Your task to perform on an android device: Open Yahoo.com Image 0: 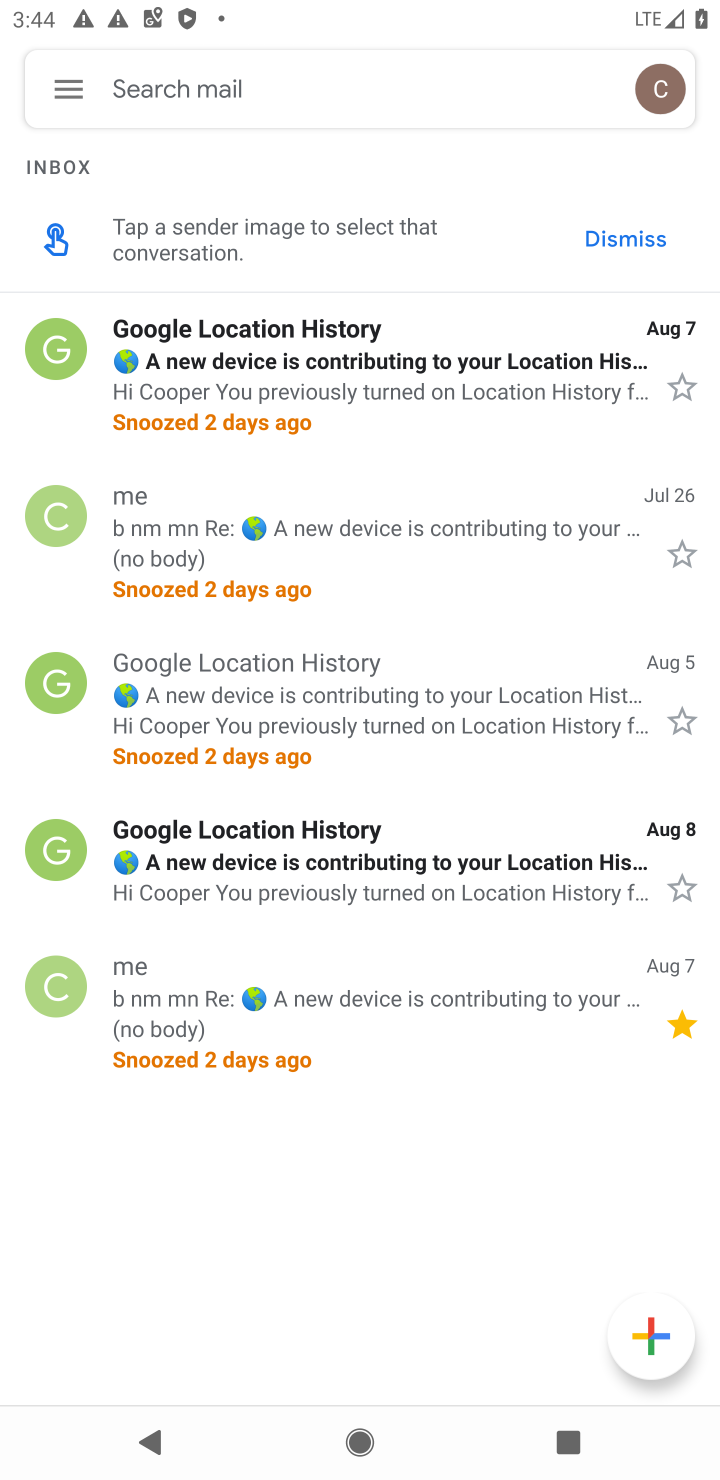
Step 0: press home button
Your task to perform on an android device: Open Yahoo.com Image 1: 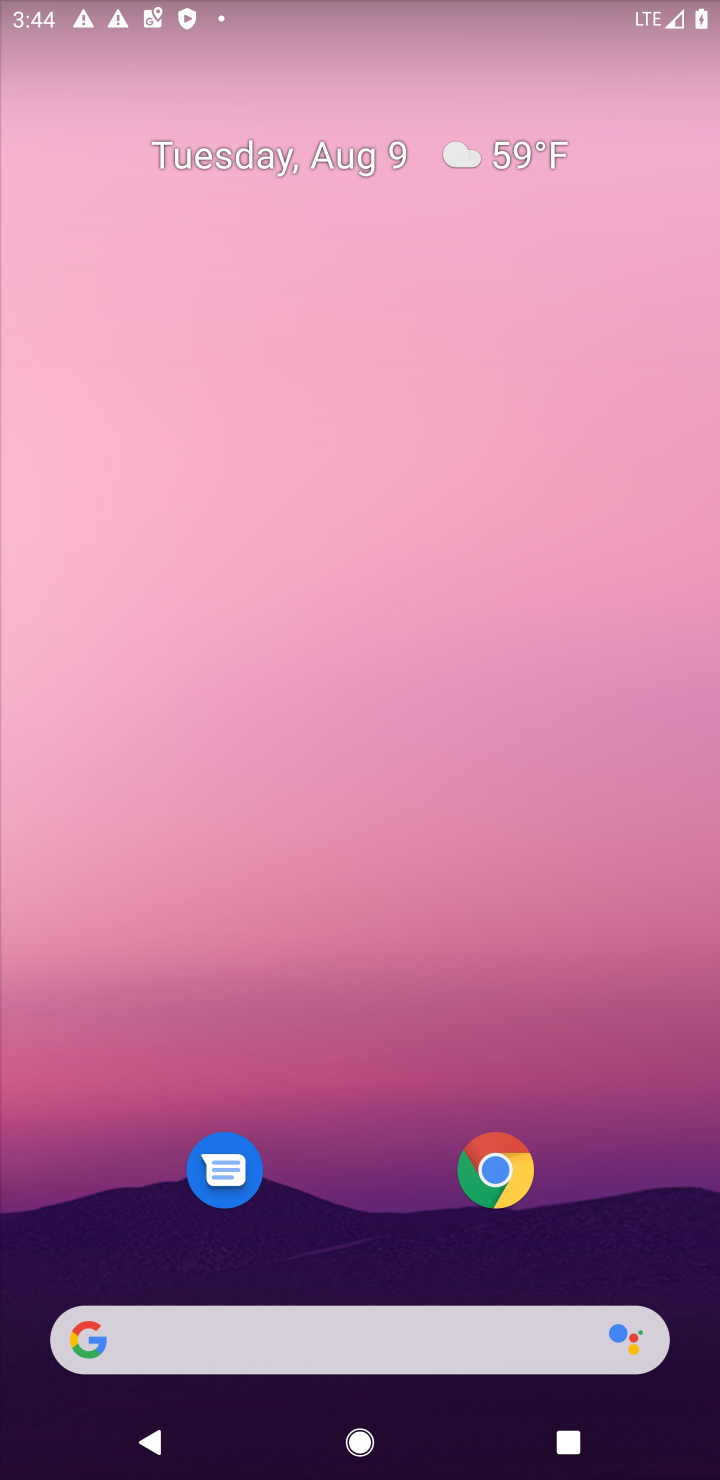
Step 1: click (88, 1344)
Your task to perform on an android device: Open Yahoo.com Image 2: 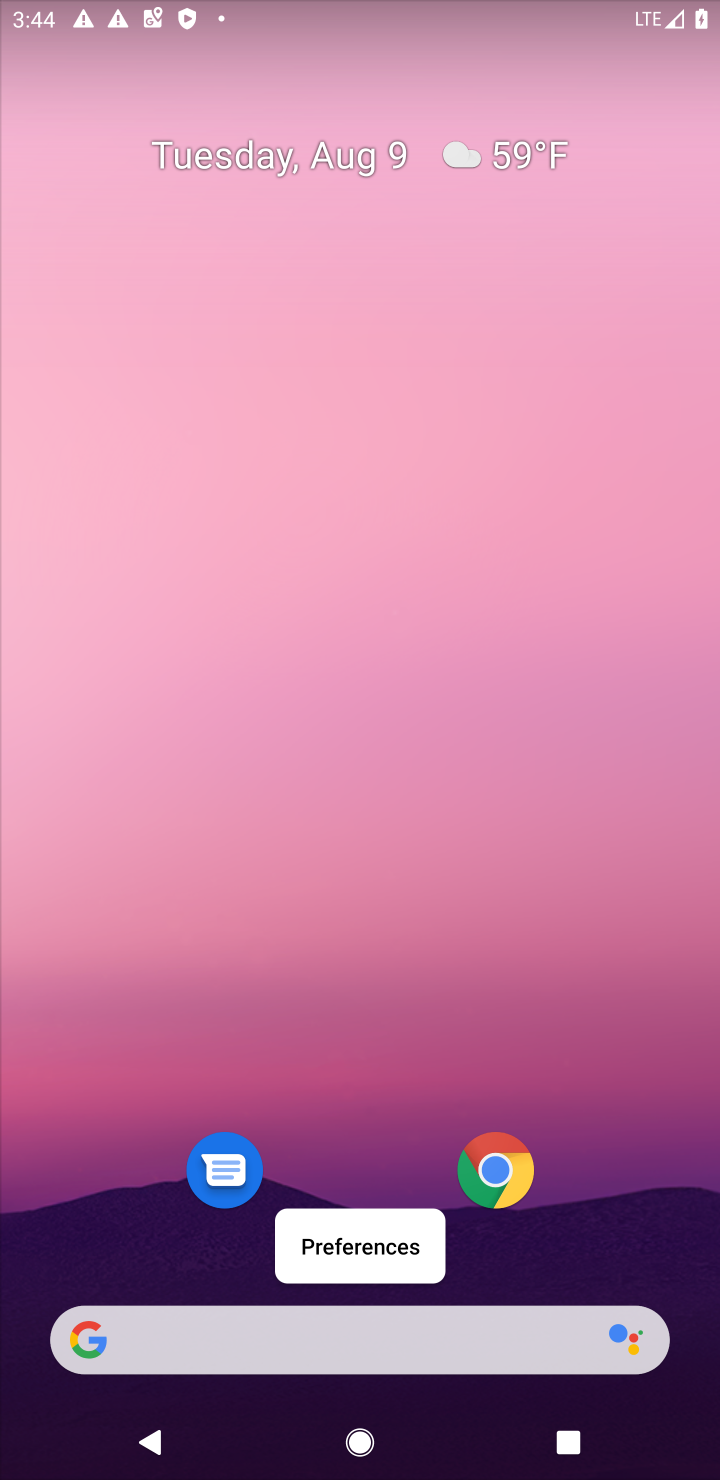
Step 2: click (82, 1339)
Your task to perform on an android device: Open Yahoo.com Image 3: 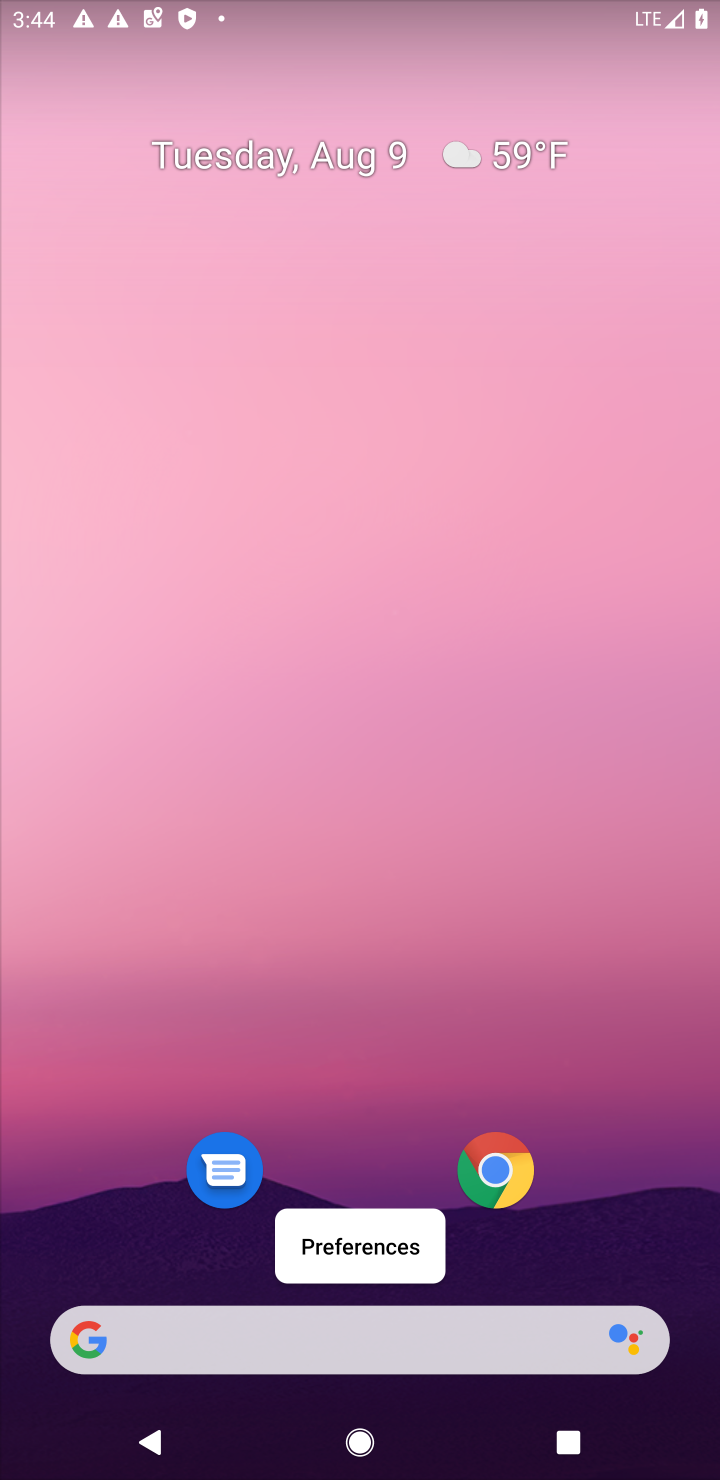
Step 3: click (82, 1339)
Your task to perform on an android device: Open Yahoo.com Image 4: 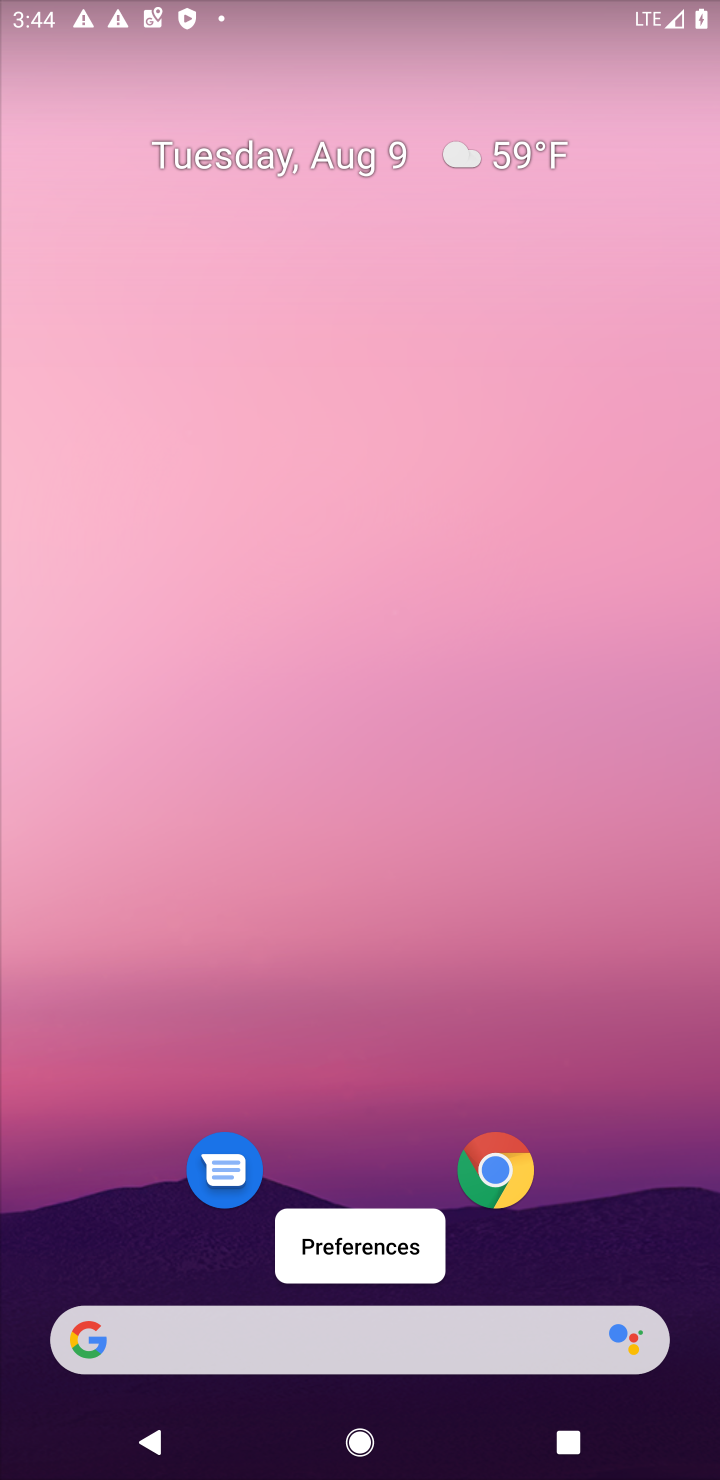
Step 4: click (72, 1349)
Your task to perform on an android device: Open Yahoo.com Image 5: 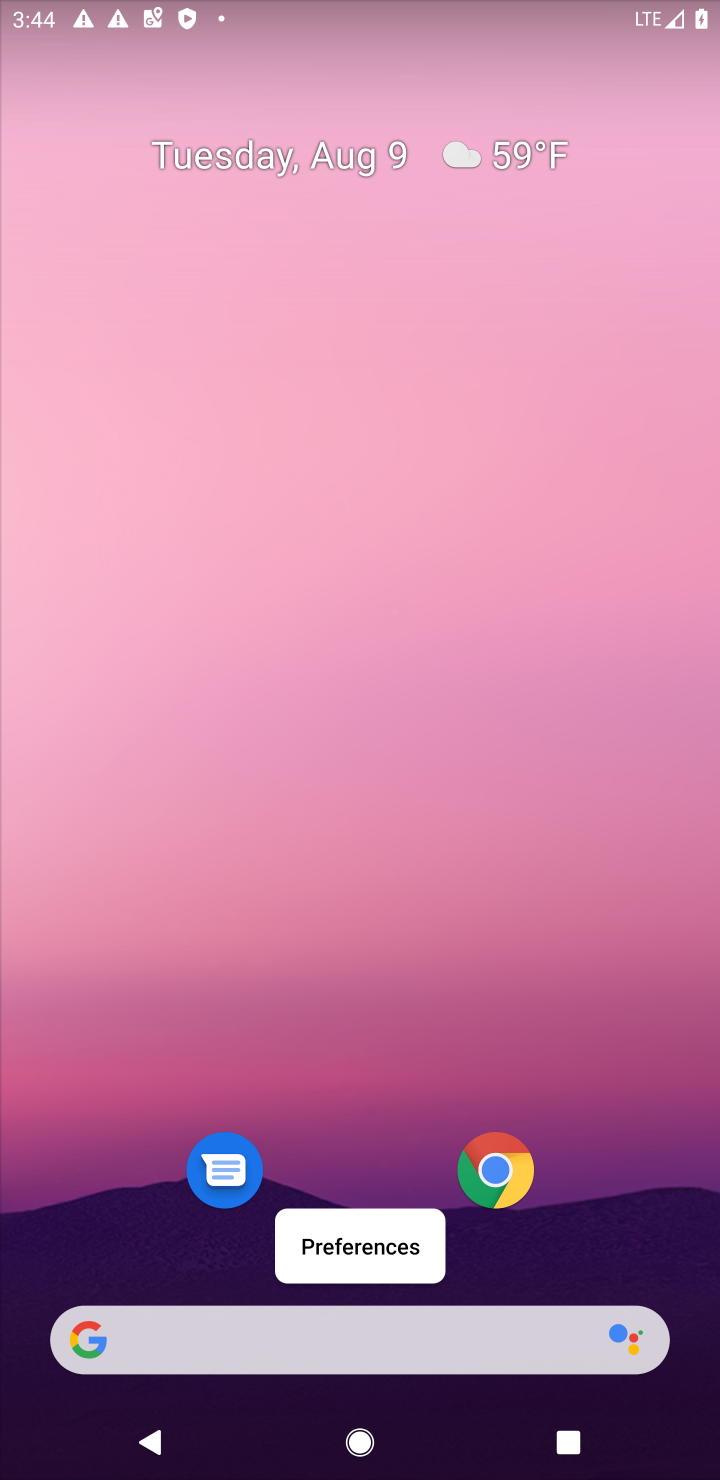
Step 5: click (72, 1346)
Your task to perform on an android device: Open Yahoo.com Image 6: 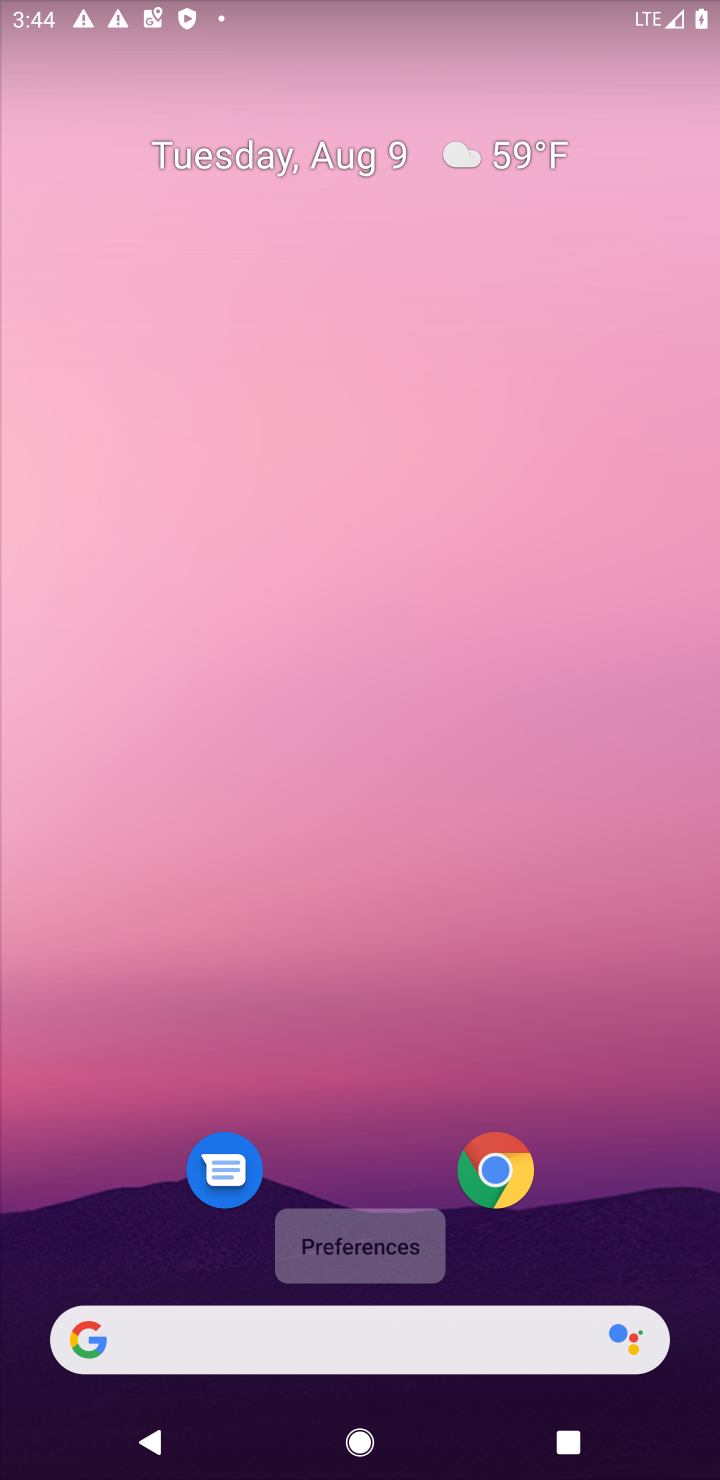
Step 6: click (77, 1339)
Your task to perform on an android device: Open Yahoo.com Image 7: 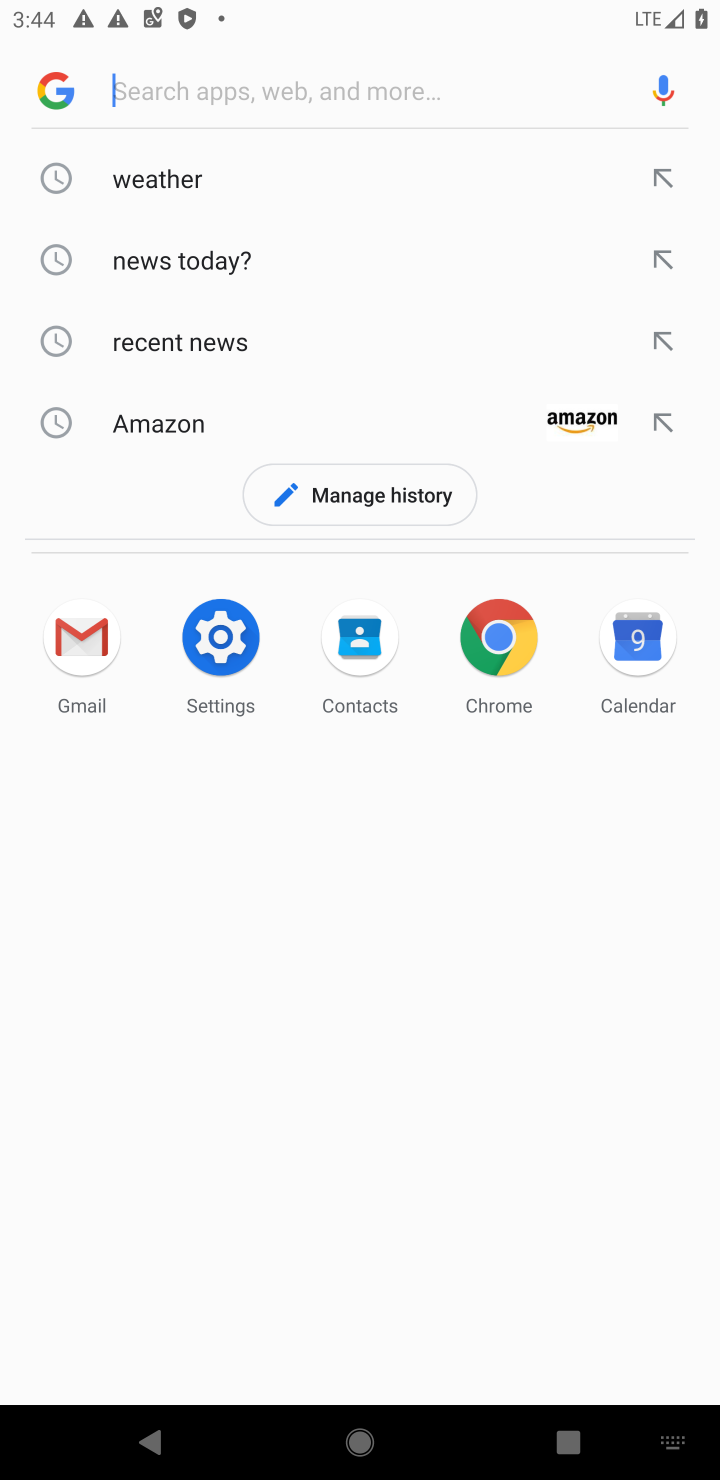
Step 7: type " Yahoo.com"
Your task to perform on an android device: Open Yahoo.com Image 8: 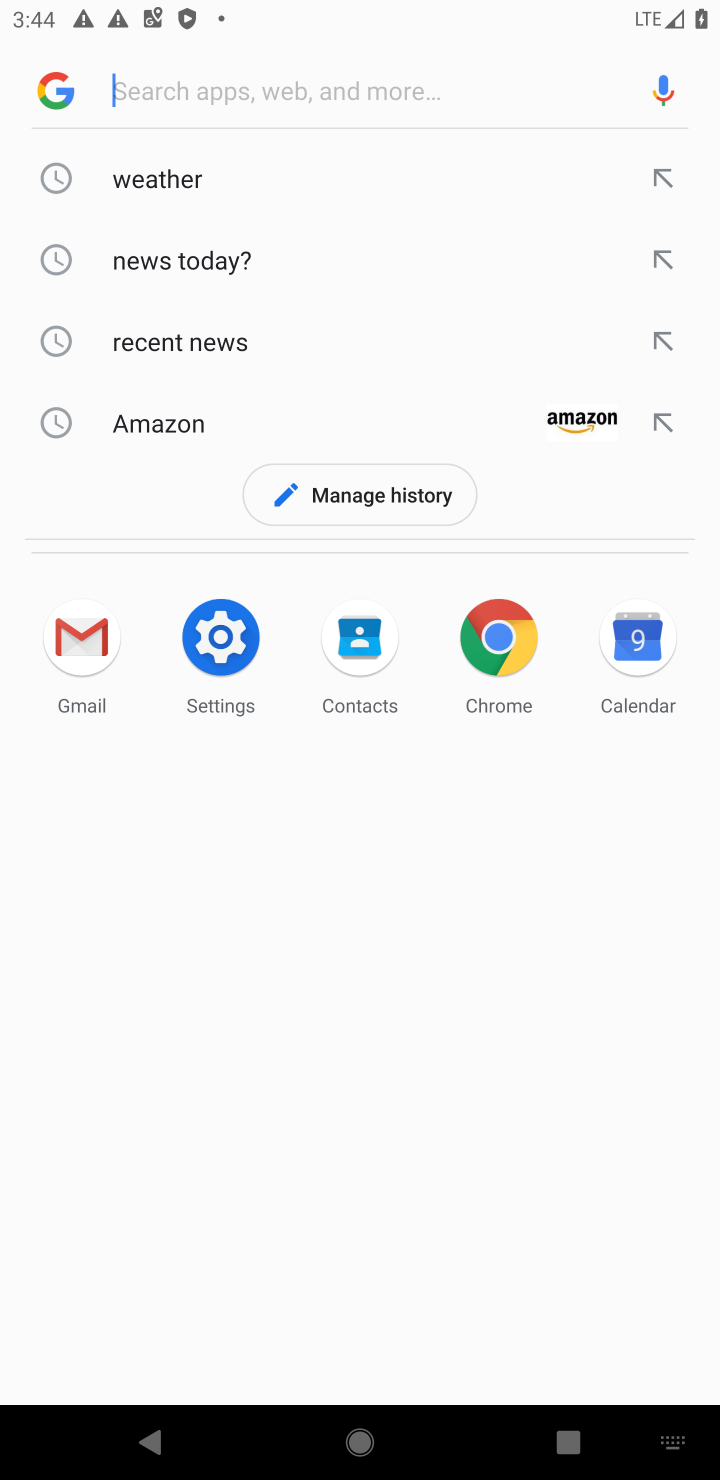
Step 8: click (206, 95)
Your task to perform on an android device: Open Yahoo.com Image 9: 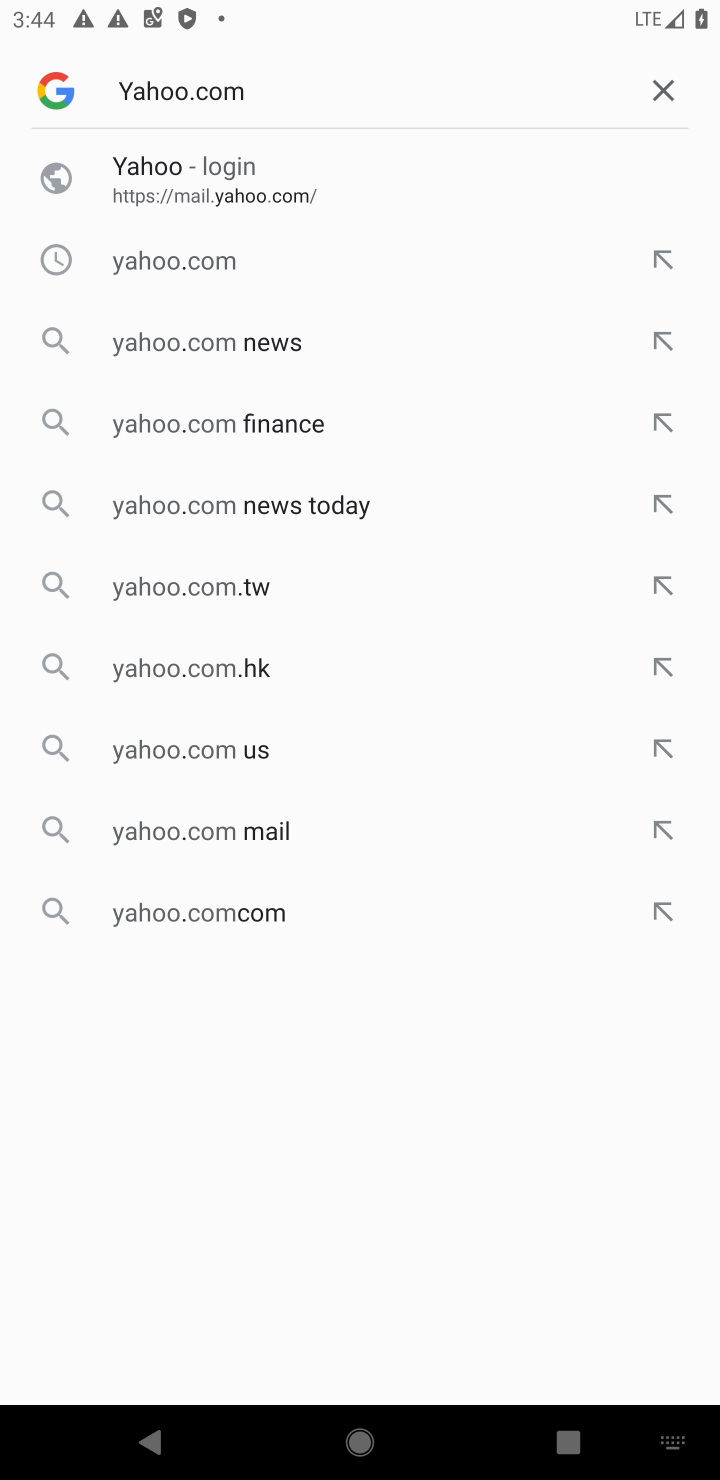
Step 9: click (210, 178)
Your task to perform on an android device: Open Yahoo.com Image 10: 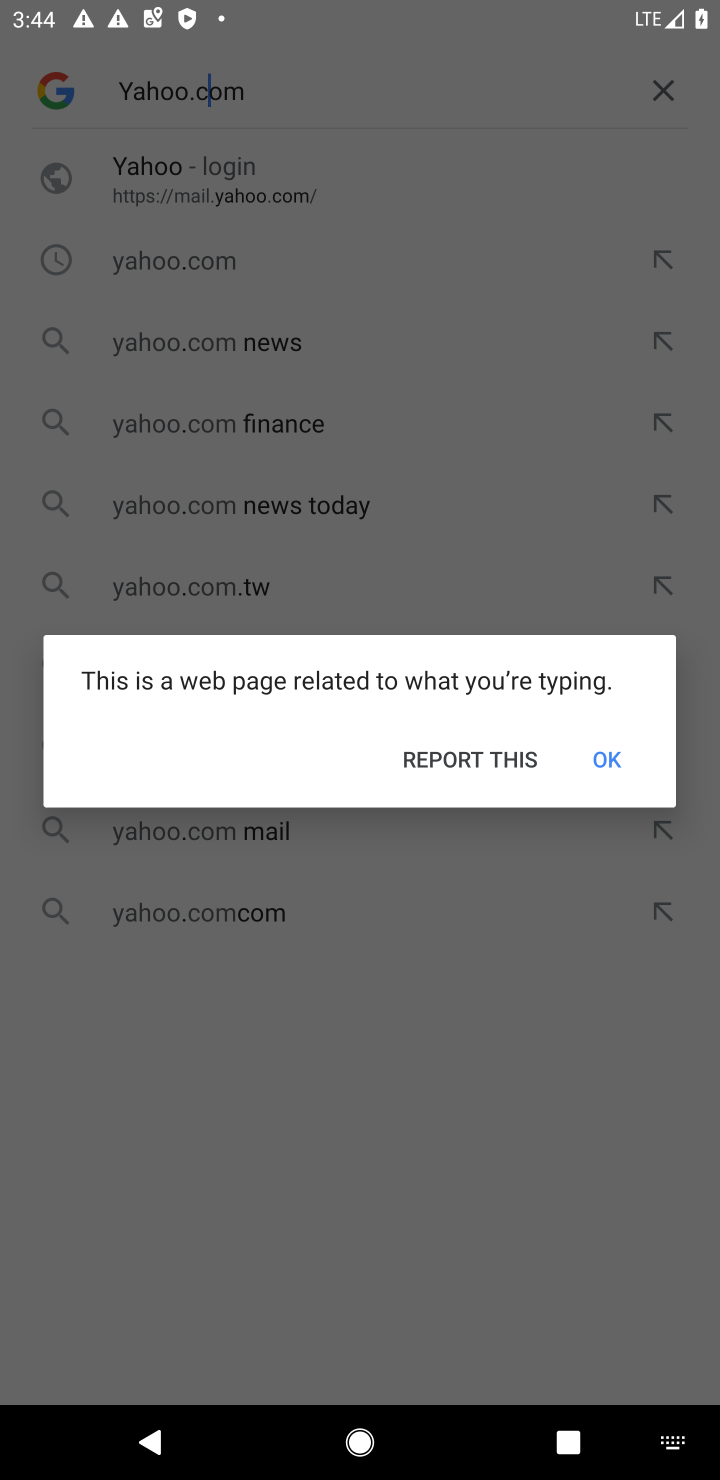
Step 10: click (612, 756)
Your task to perform on an android device: Open Yahoo.com Image 11: 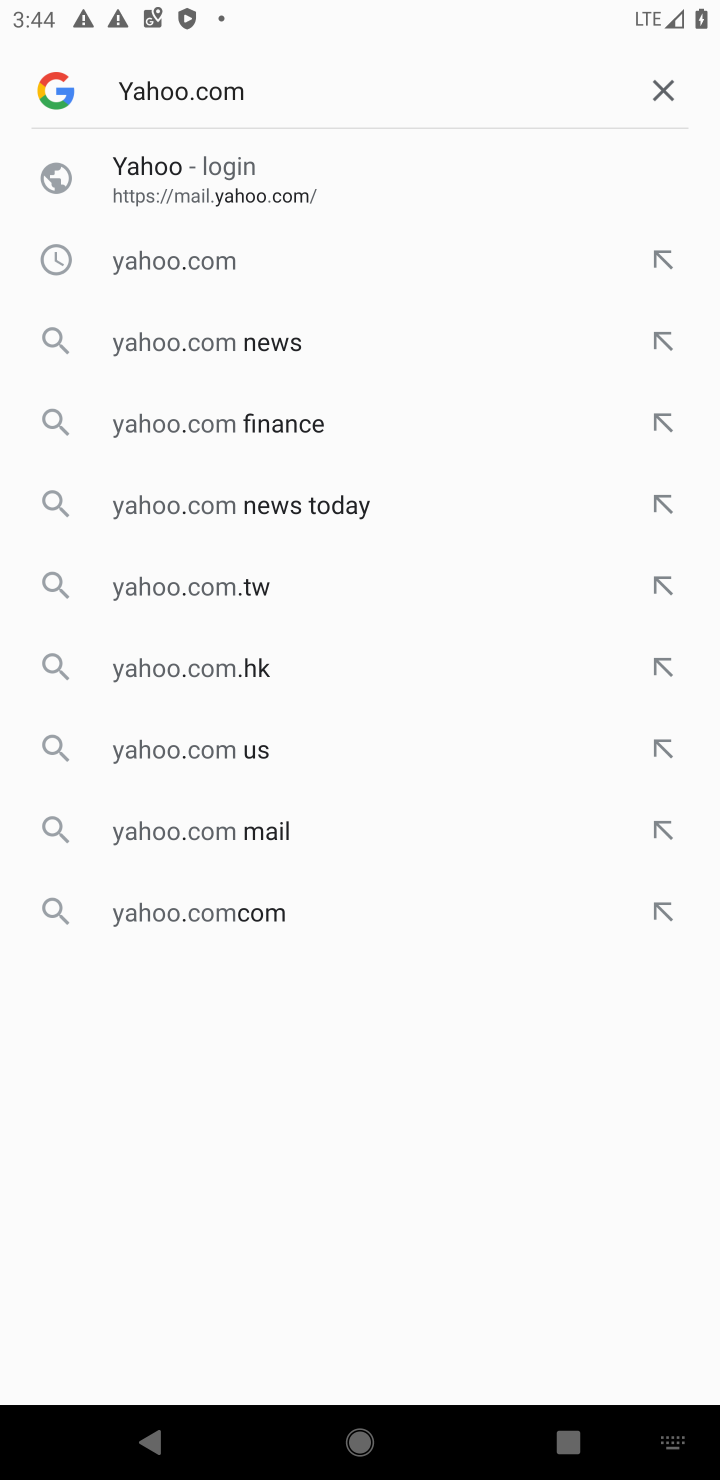
Step 11: press enter
Your task to perform on an android device: Open Yahoo.com Image 12: 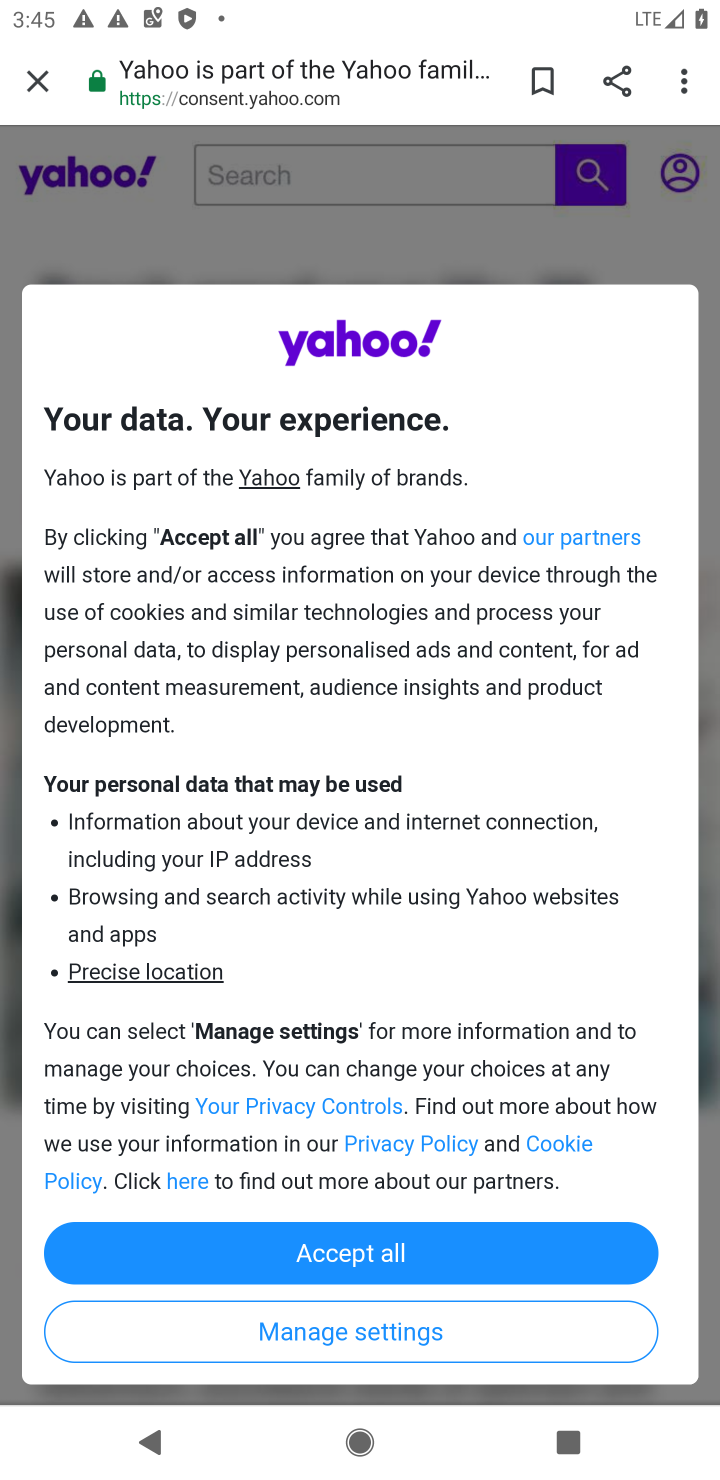
Step 12: click (324, 1243)
Your task to perform on an android device: Open Yahoo.com Image 13: 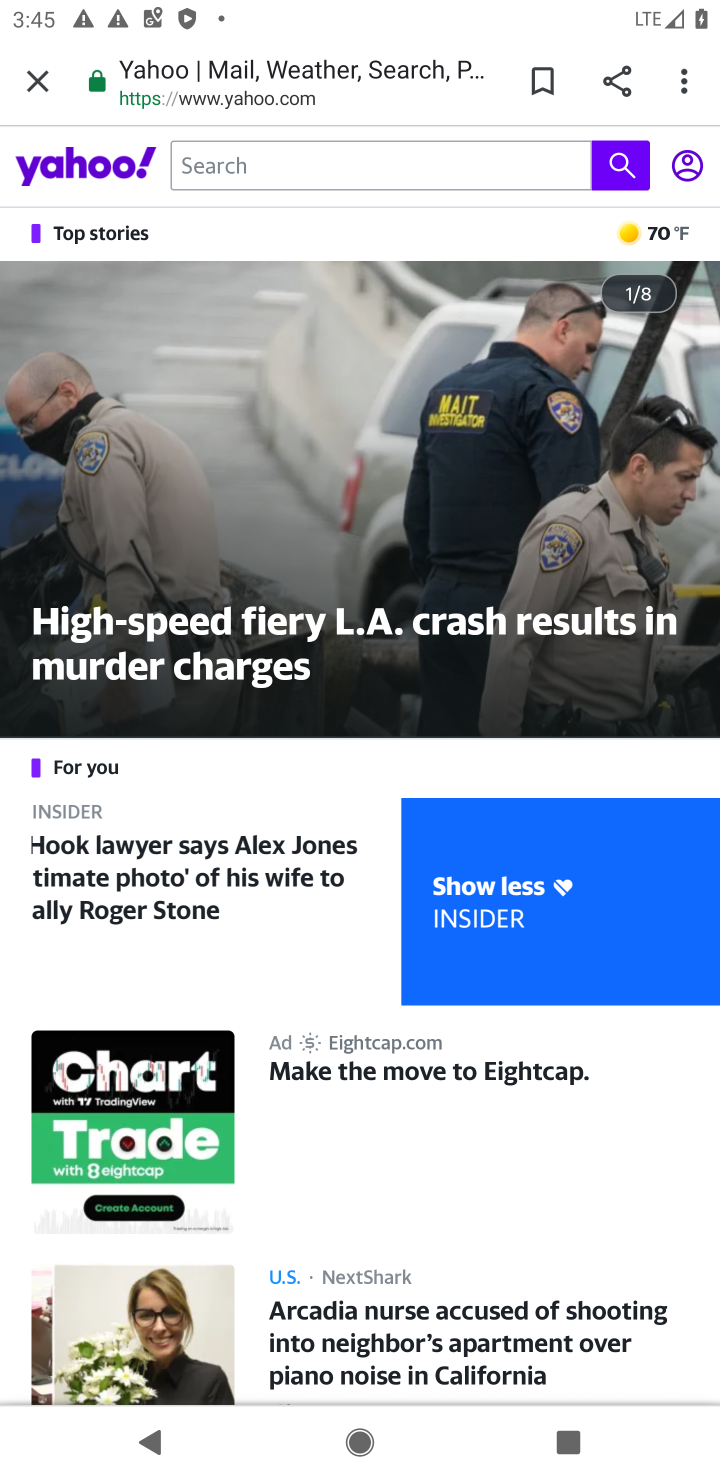
Step 13: task complete